Your task to perform on an android device: Go to Google maps Image 0: 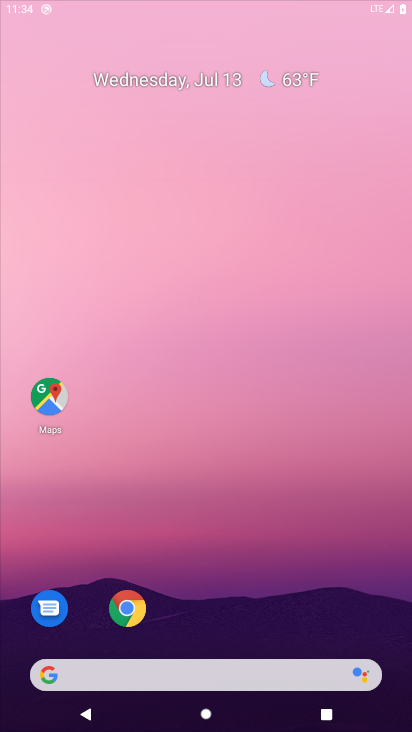
Step 0: press home button
Your task to perform on an android device: Go to Google maps Image 1: 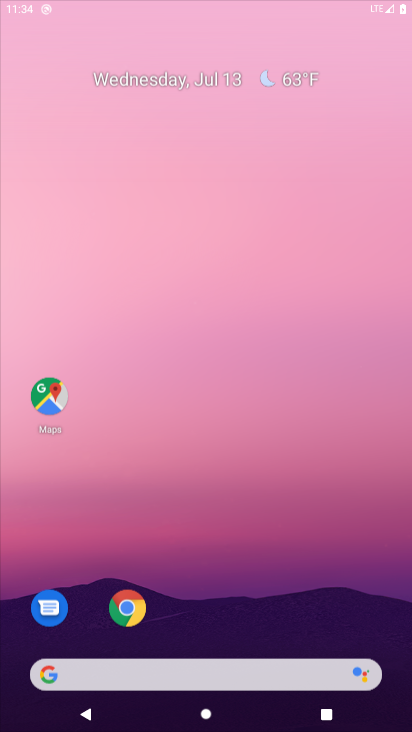
Step 1: drag from (300, 638) to (323, 40)
Your task to perform on an android device: Go to Google maps Image 2: 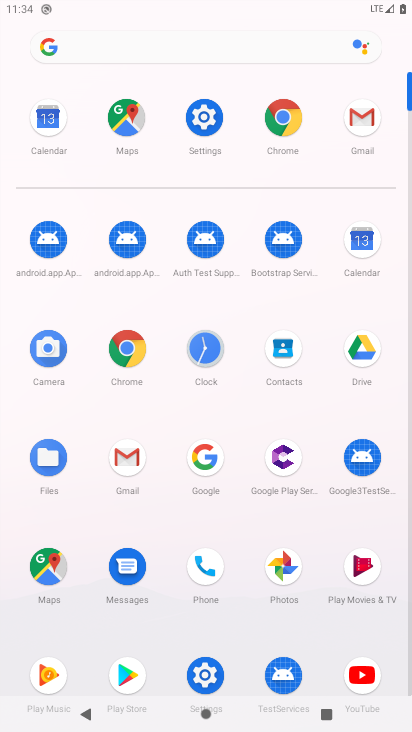
Step 2: click (128, 124)
Your task to perform on an android device: Go to Google maps Image 3: 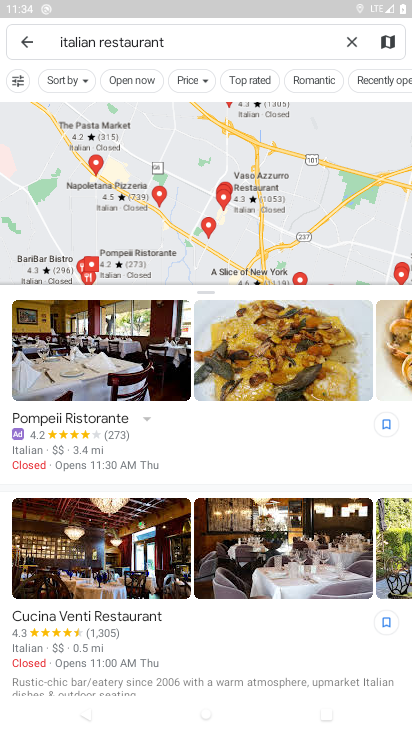
Step 3: task complete